Your task to perform on an android device: Open Google Maps Image 0: 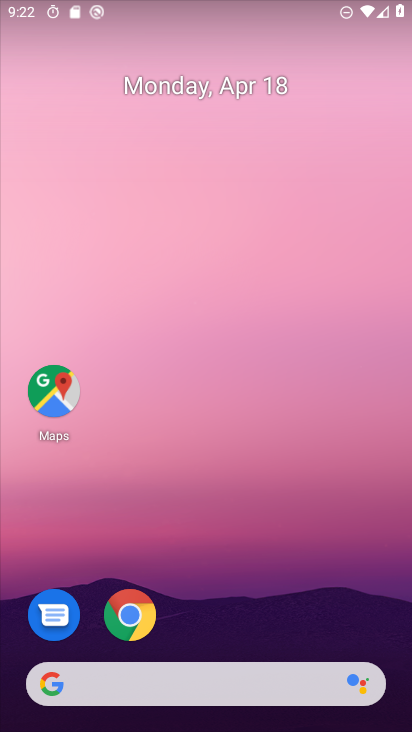
Step 0: click (153, 577)
Your task to perform on an android device: Open Google Maps Image 1: 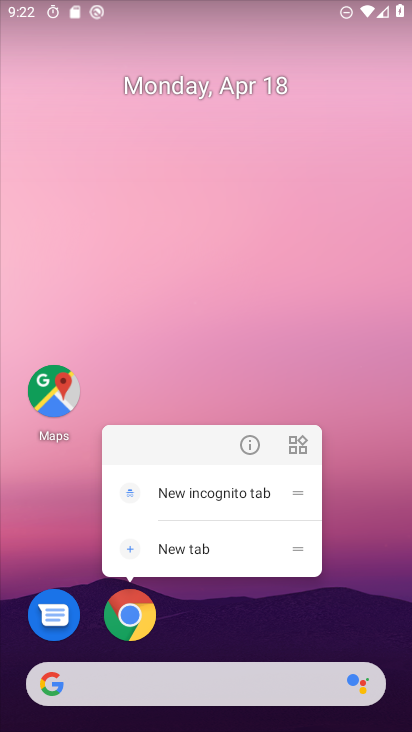
Step 1: click (49, 394)
Your task to perform on an android device: Open Google Maps Image 2: 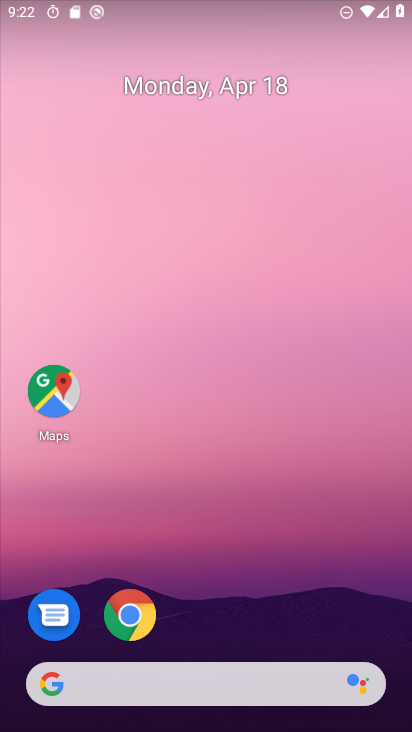
Step 2: click (49, 393)
Your task to perform on an android device: Open Google Maps Image 3: 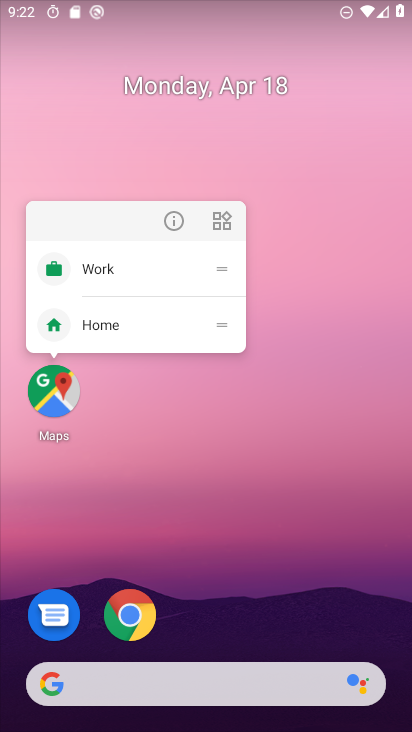
Step 3: click (49, 394)
Your task to perform on an android device: Open Google Maps Image 4: 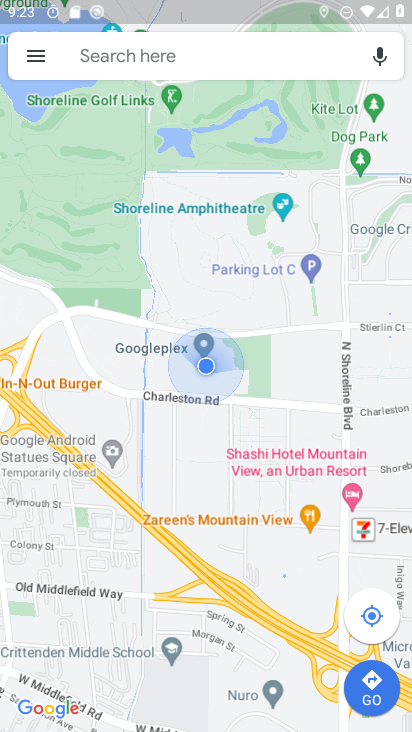
Step 4: task complete